Your task to perform on an android device: set the timer Image 0: 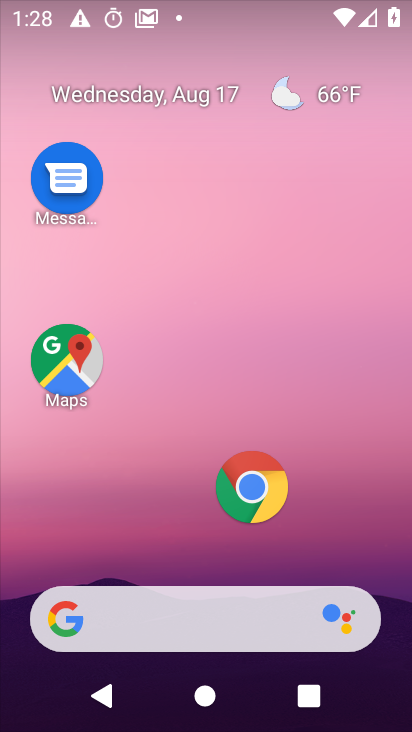
Step 0: drag from (226, 579) to (243, 112)
Your task to perform on an android device: set the timer Image 1: 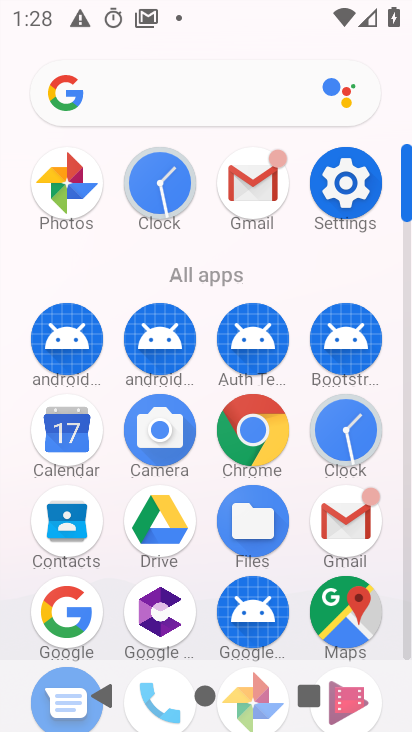
Step 1: click (149, 210)
Your task to perform on an android device: set the timer Image 2: 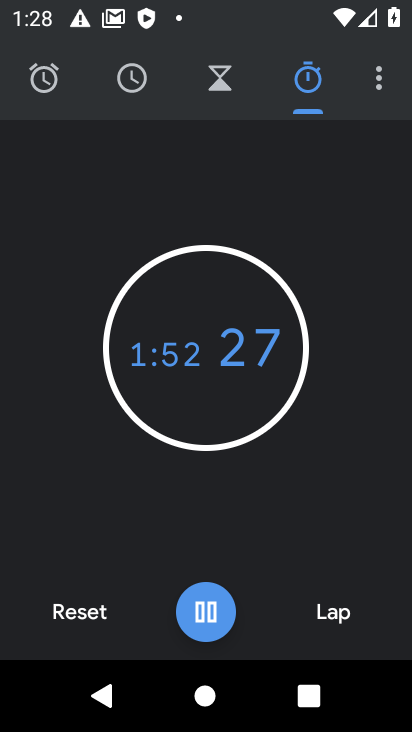
Step 2: click (218, 78)
Your task to perform on an android device: set the timer Image 3: 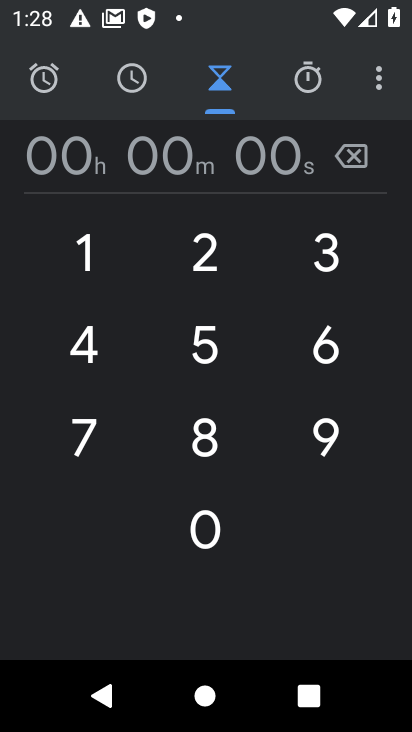
Step 3: click (207, 352)
Your task to perform on an android device: set the timer Image 4: 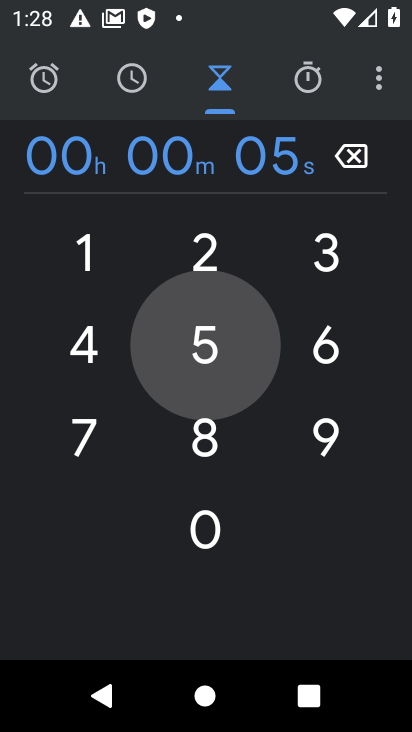
Step 4: click (212, 256)
Your task to perform on an android device: set the timer Image 5: 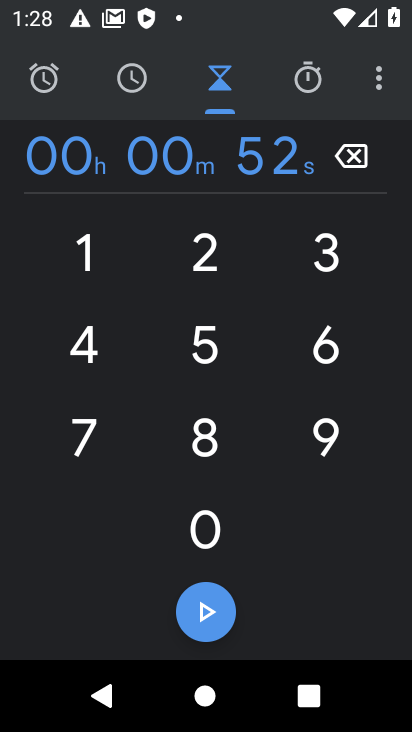
Step 5: click (102, 247)
Your task to perform on an android device: set the timer Image 6: 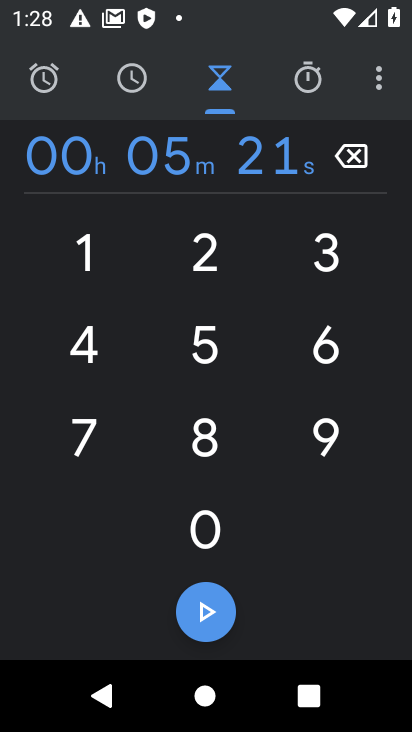
Step 6: click (191, 253)
Your task to perform on an android device: set the timer Image 7: 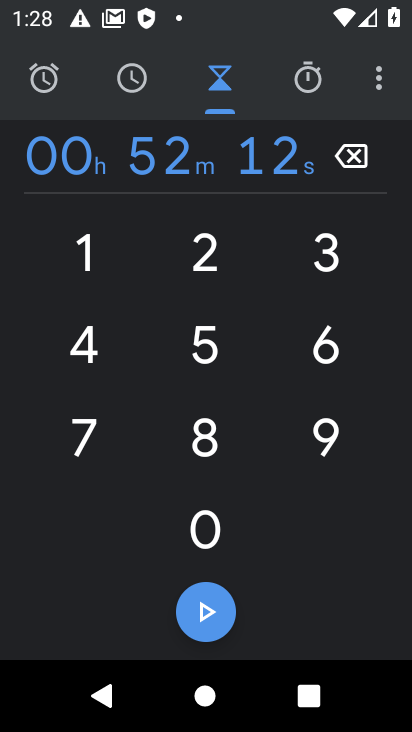
Step 7: click (314, 435)
Your task to perform on an android device: set the timer Image 8: 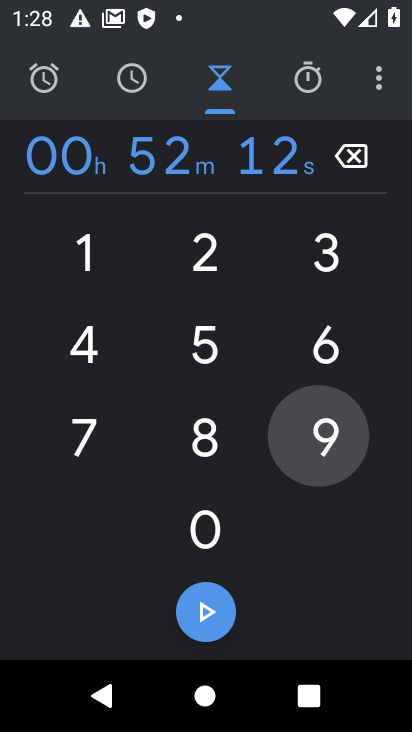
Step 8: click (314, 435)
Your task to perform on an android device: set the timer Image 9: 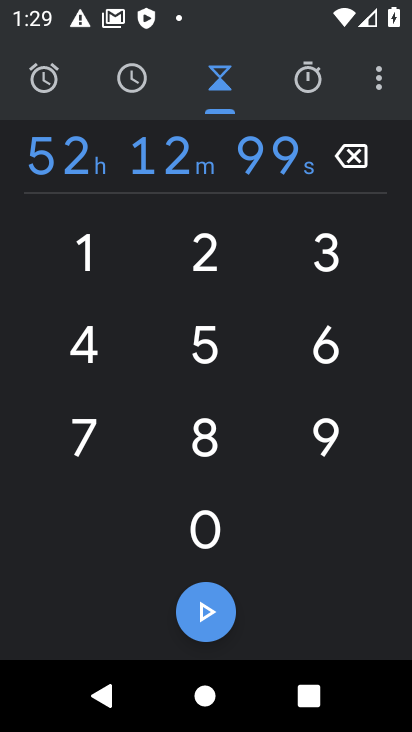
Step 9: click (204, 619)
Your task to perform on an android device: set the timer Image 10: 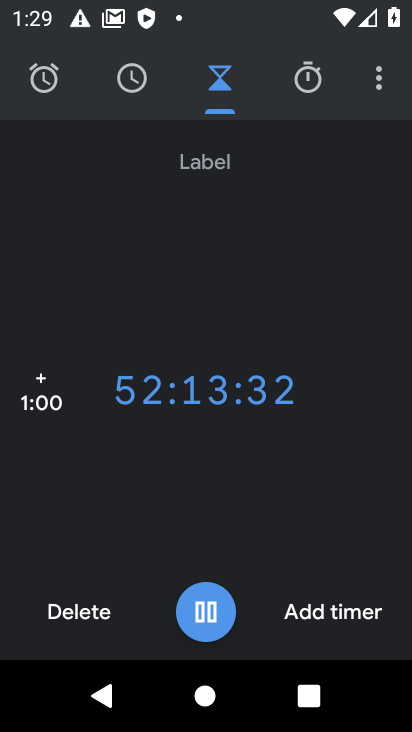
Step 10: task complete